Your task to perform on an android device: Set the phone to "Do not disturb". Image 0: 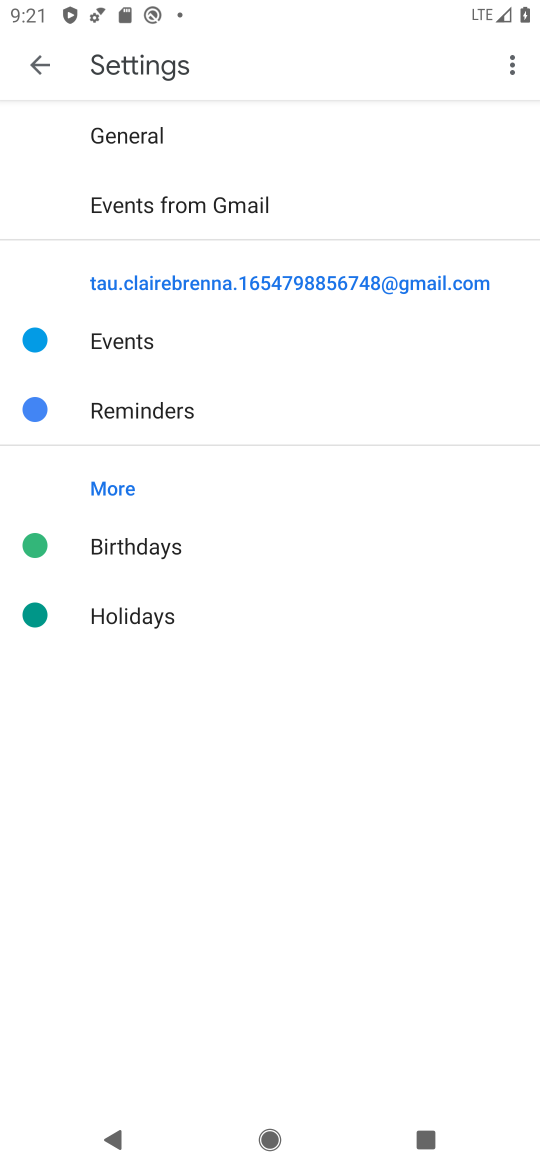
Step 0: press home button
Your task to perform on an android device: Set the phone to "Do not disturb". Image 1: 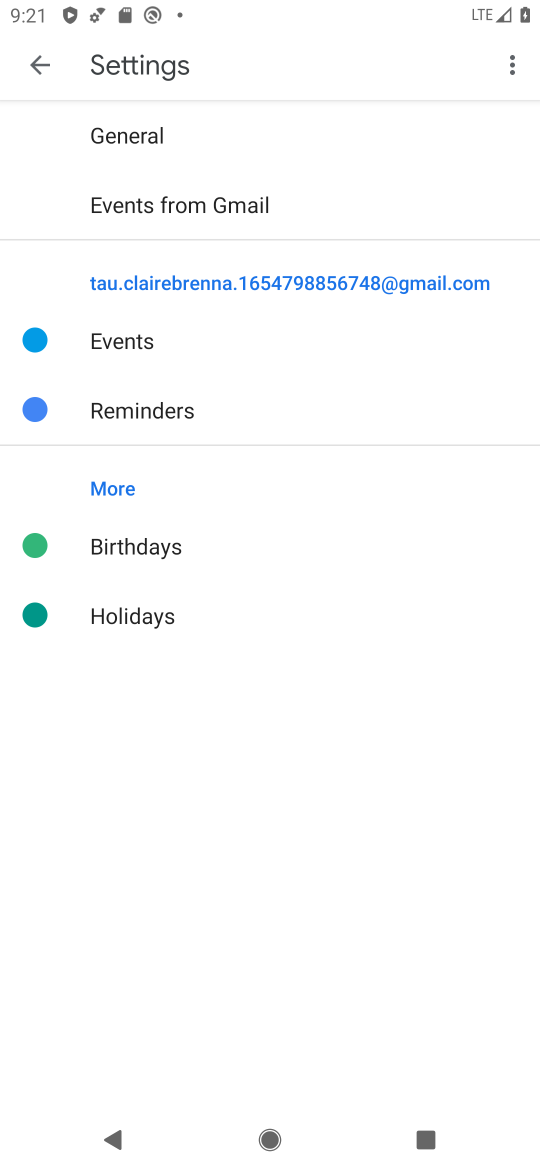
Step 1: press home button
Your task to perform on an android device: Set the phone to "Do not disturb". Image 2: 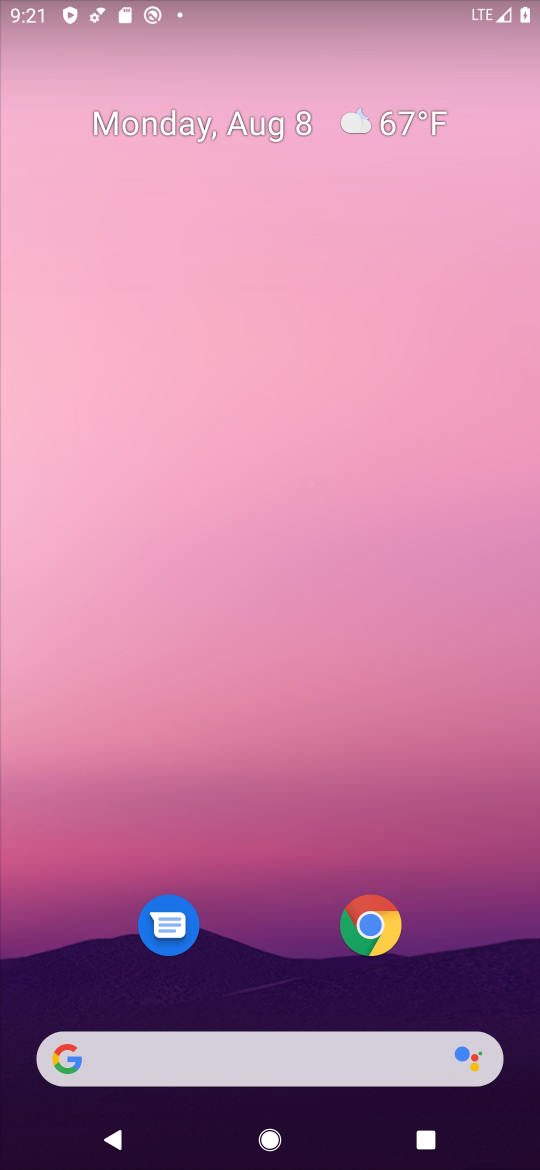
Step 2: drag from (243, 863) to (243, 37)
Your task to perform on an android device: Set the phone to "Do not disturb". Image 3: 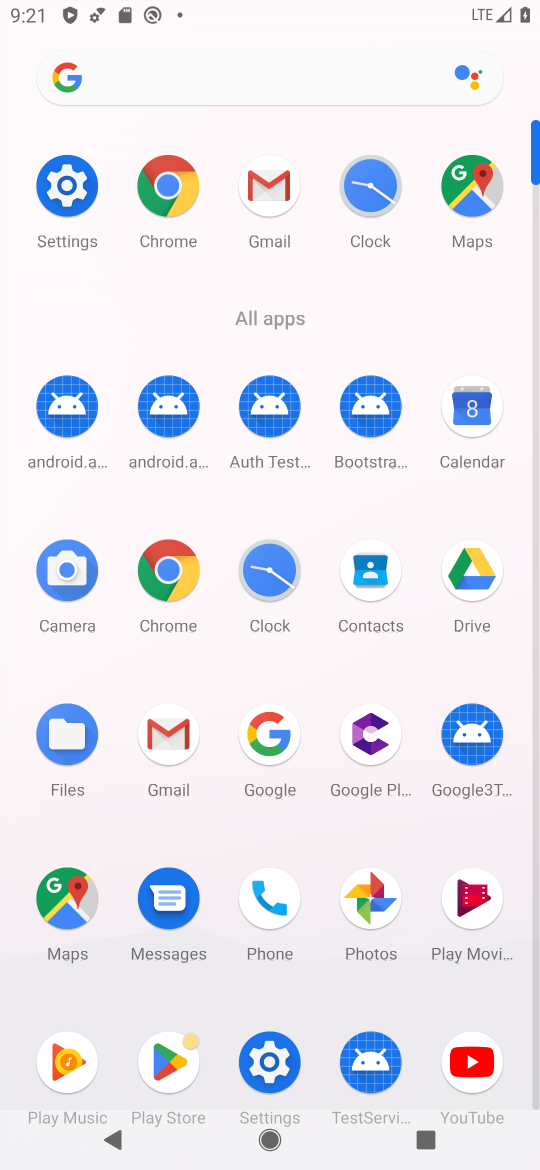
Step 3: press home button
Your task to perform on an android device: Set the phone to "Do not disturb". Image 4: 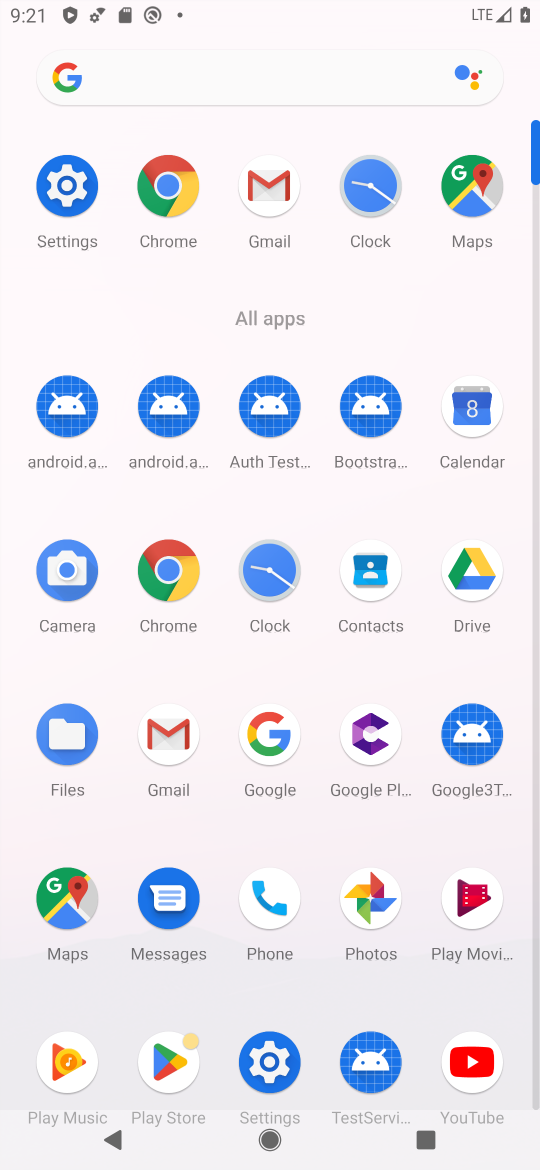
Step 4: press home button
Your task to perform on an android device: Set the phone to "Do not disturb". Image 5: 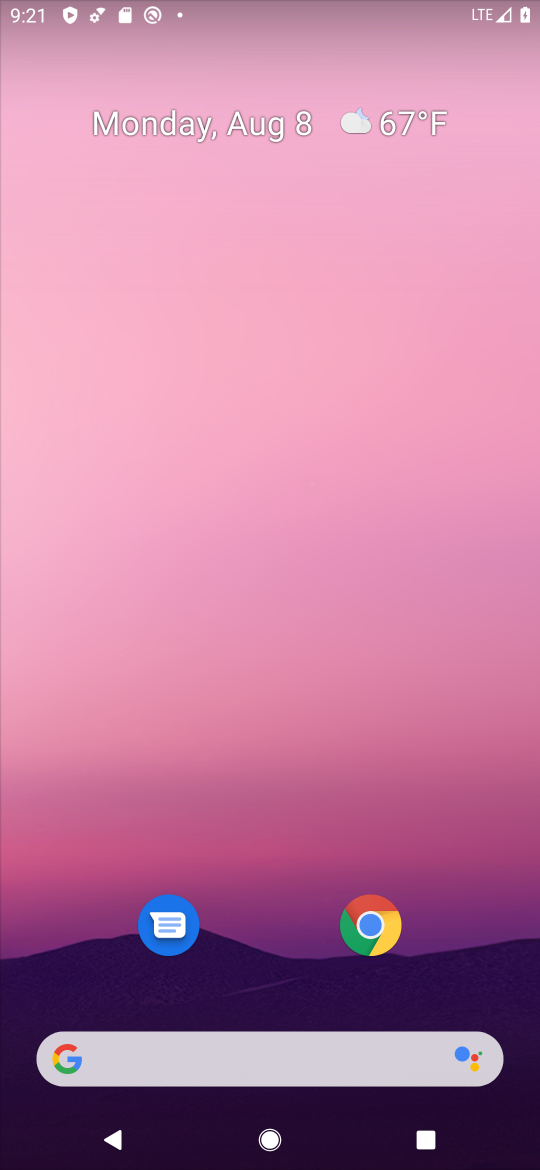
Step 5: drag from (264, 0) to (415, 920)
Your task to perform on an android device: Set the phone to "Do not disturb". Image 6: 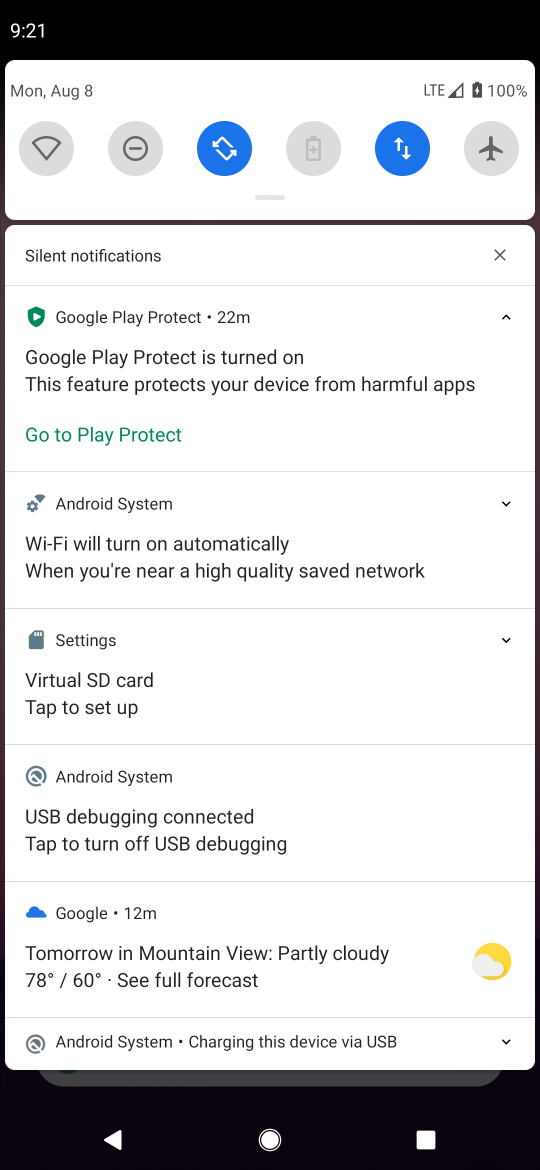
Step 6: click (136, 125)
Your task to perform on an android device: Set the phone to "Do not disturb". Image 7: 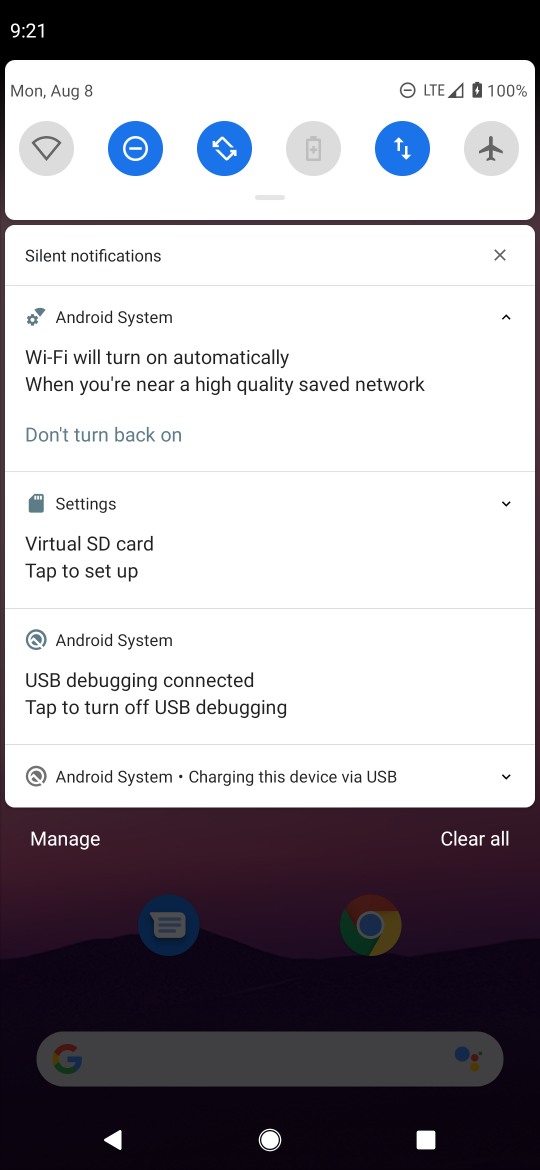
Step 7: task complete